Your task to perform on an android device: clear history in the chrome app Image 0: 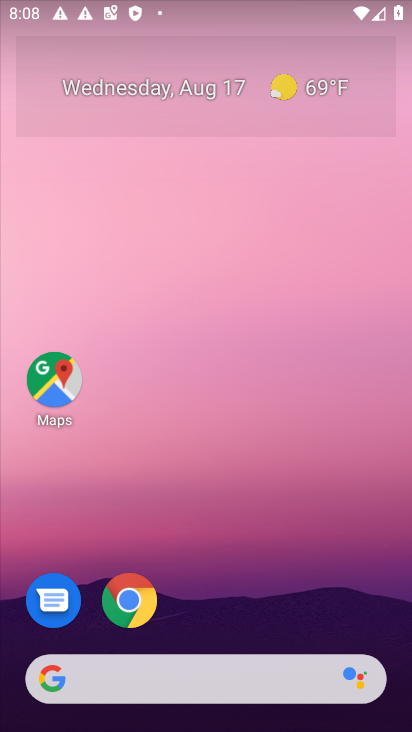
Step 0: press home button
Your task to perform on an android device: clear history in the chrome app Image 1: 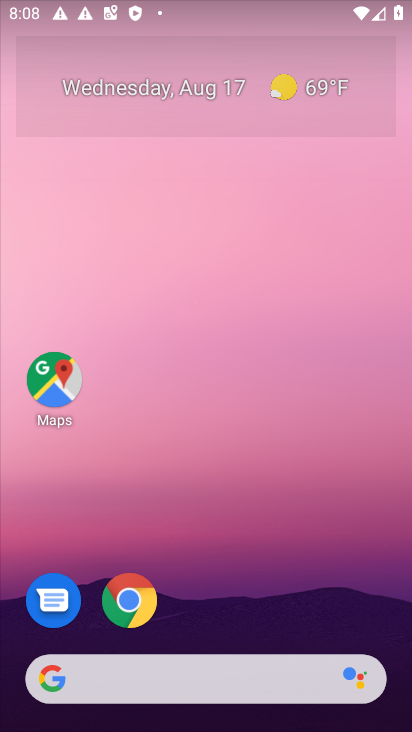
Step 1: click (123, 599)
Your task to perform on an android device: clear history in the chrome app Image 2: 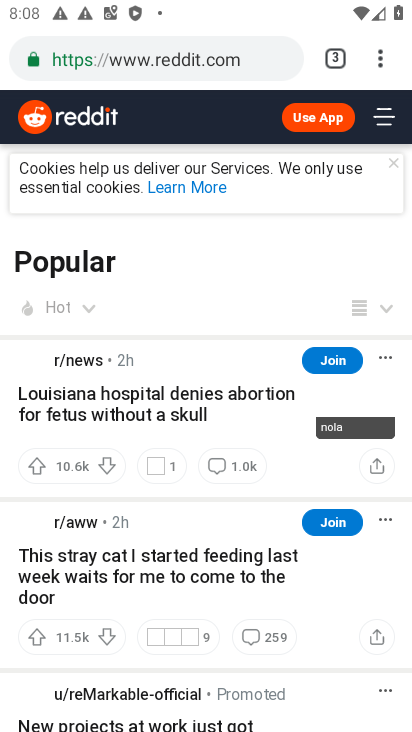
Step 2: drag from (378, 56) to (214, 633)
Your task to perform on an android device: clear history in the chrome app Image 3: 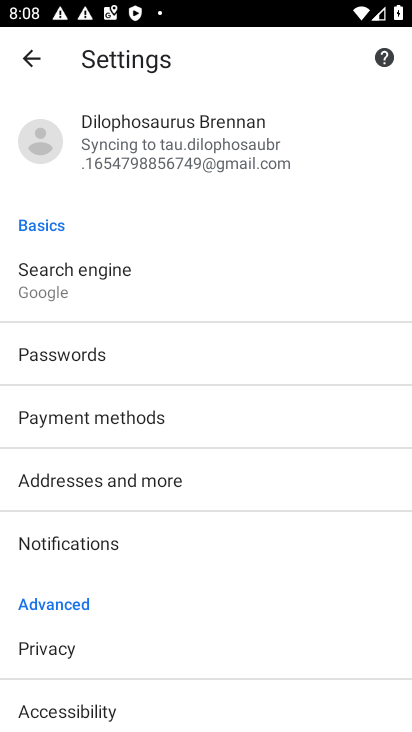
Step 3: drag from (111, 603) to (127, 416)
Your task to perform on an android device: clear history in the chrome app Image 4: 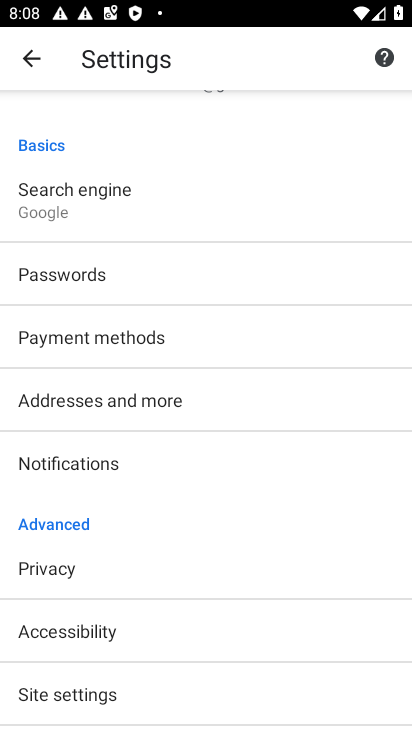
Step 4: click (82, 697)
Your task to perform on an android device: clear history in the chrome app Image 5: 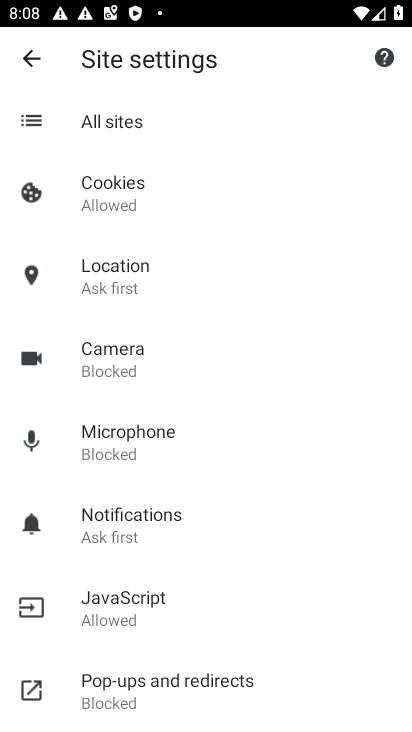
Step 5: click (32, 63)
Your task to perform on an android device: clear history in the chrome app Image 6: 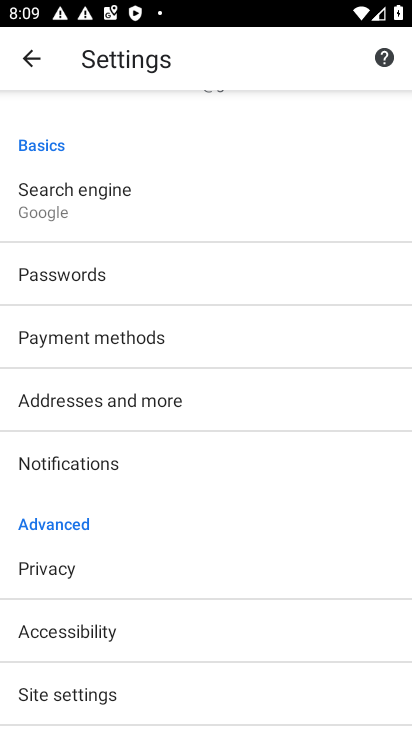
Step 6: click (22, 553)
Your task to perform on an android device: clear history in the chrome app Image 7: 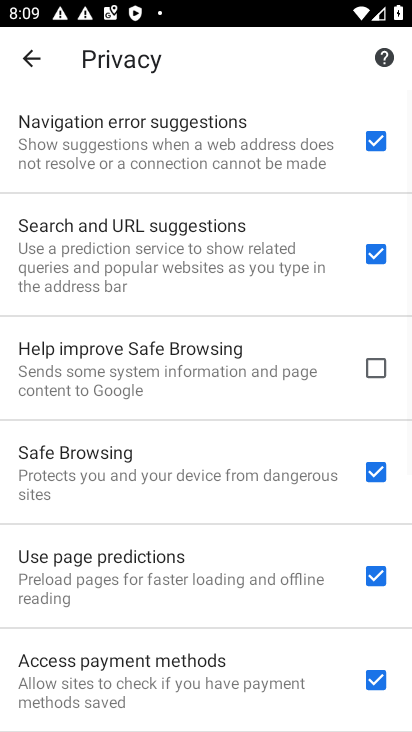
Step 7: drag from (226, 630) to (237, 192)
Your task to perform on an android device: clear history in the chrome app Image 8: 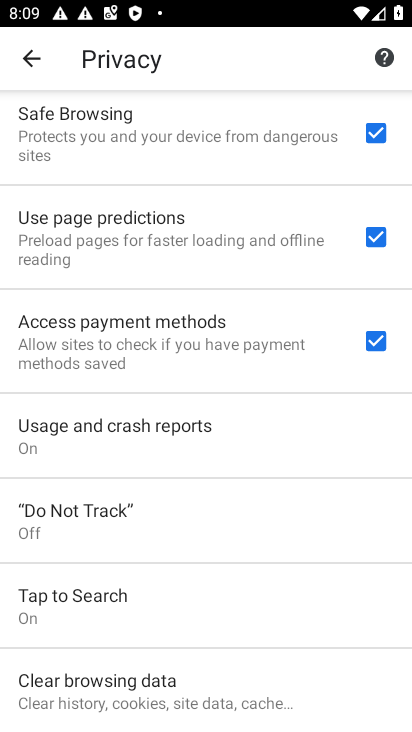
Step 8: click (146, 680)
Your task to perform on an android device: clear history in the chrome app Image 9: 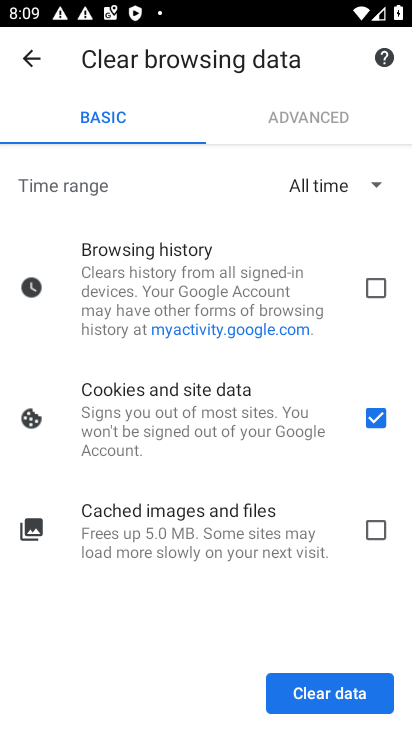
Step 9: click (375, 287)
Your task to perform on an android device: clear history in the chrome app Image 10: 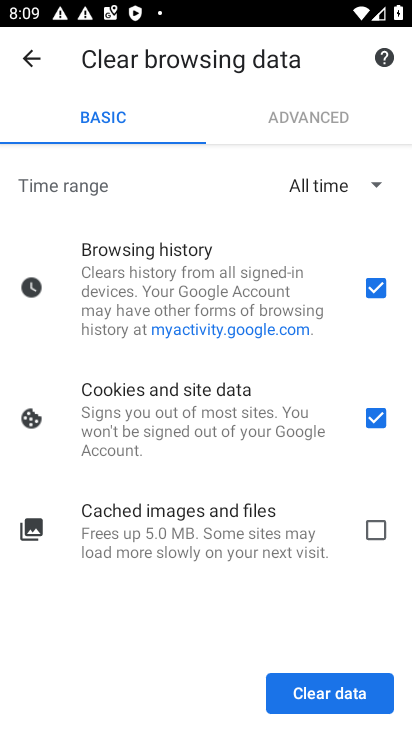
Step 10: click (384, 428)
Your task to perform on an android device: clear history in the chrome app Image 11: 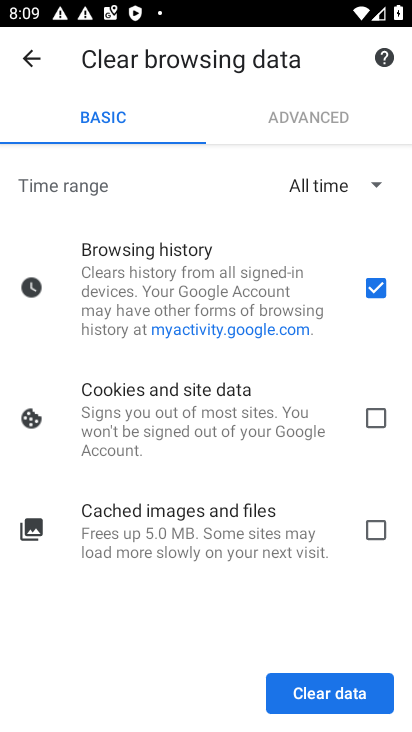
Step 11: click (320, 705)
Your task to perform on an android device: clear history in the chrome app Image 12: 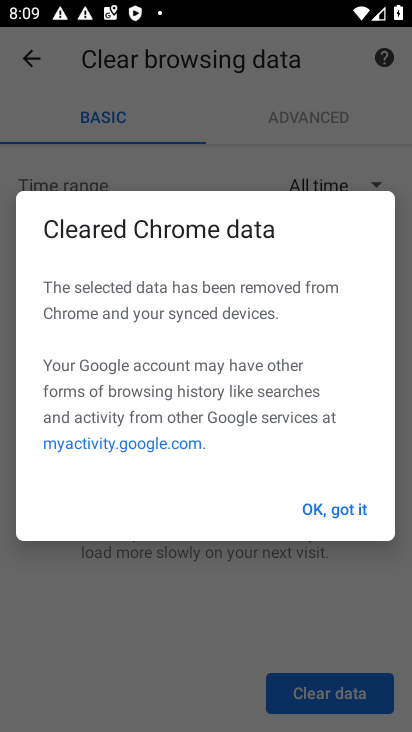
Step 12: click (347, 502)
Your task to perform on an android device: clear history in the chrome app Image 13: 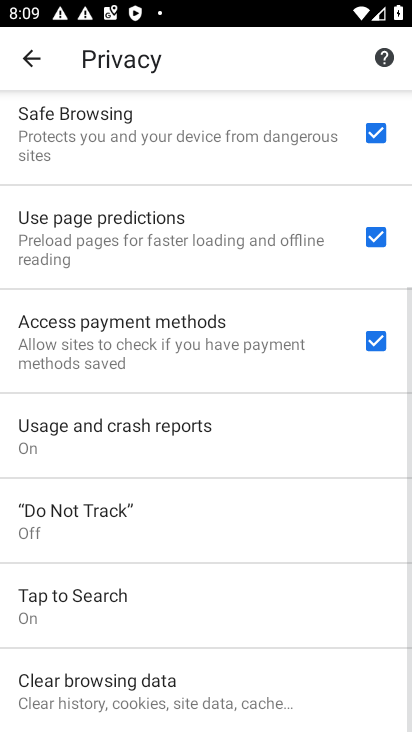
Step 13: task complete